Your task to perform on an android device: open wifi settings Image 0: 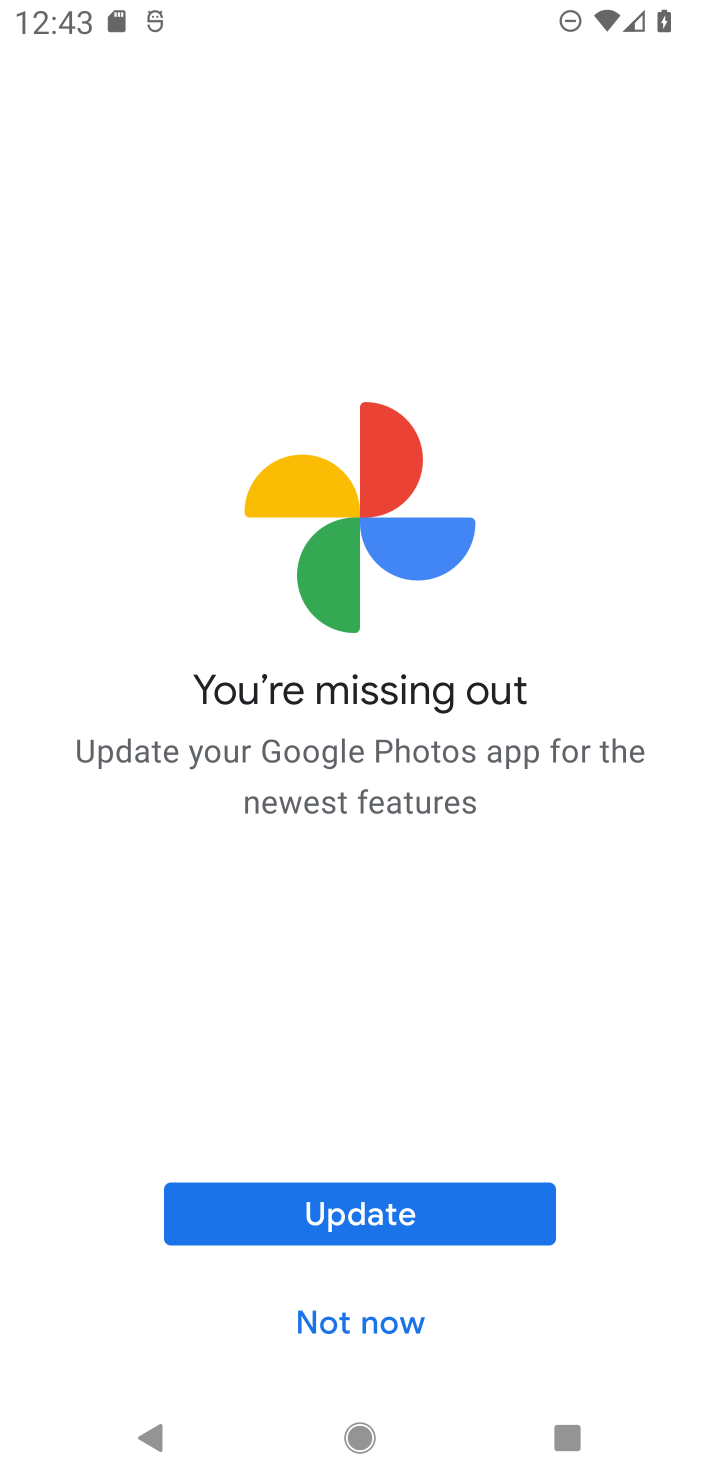
Step 0: press home button
Your task to perform on an android device: open wifi settings Image 1: 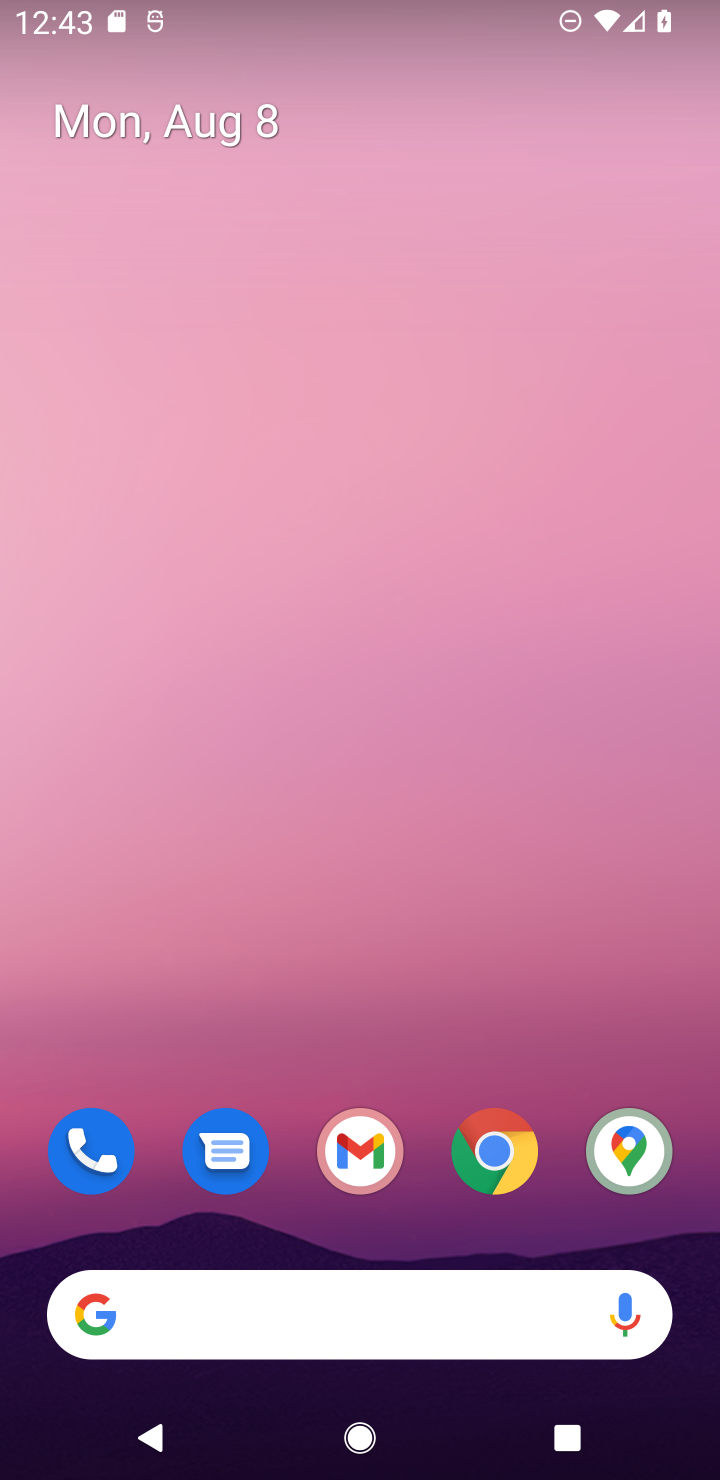
Step 1: drag from (309, 1285) to (160, 272)
Your task to perform on an android device: open wifi settings Image 2: 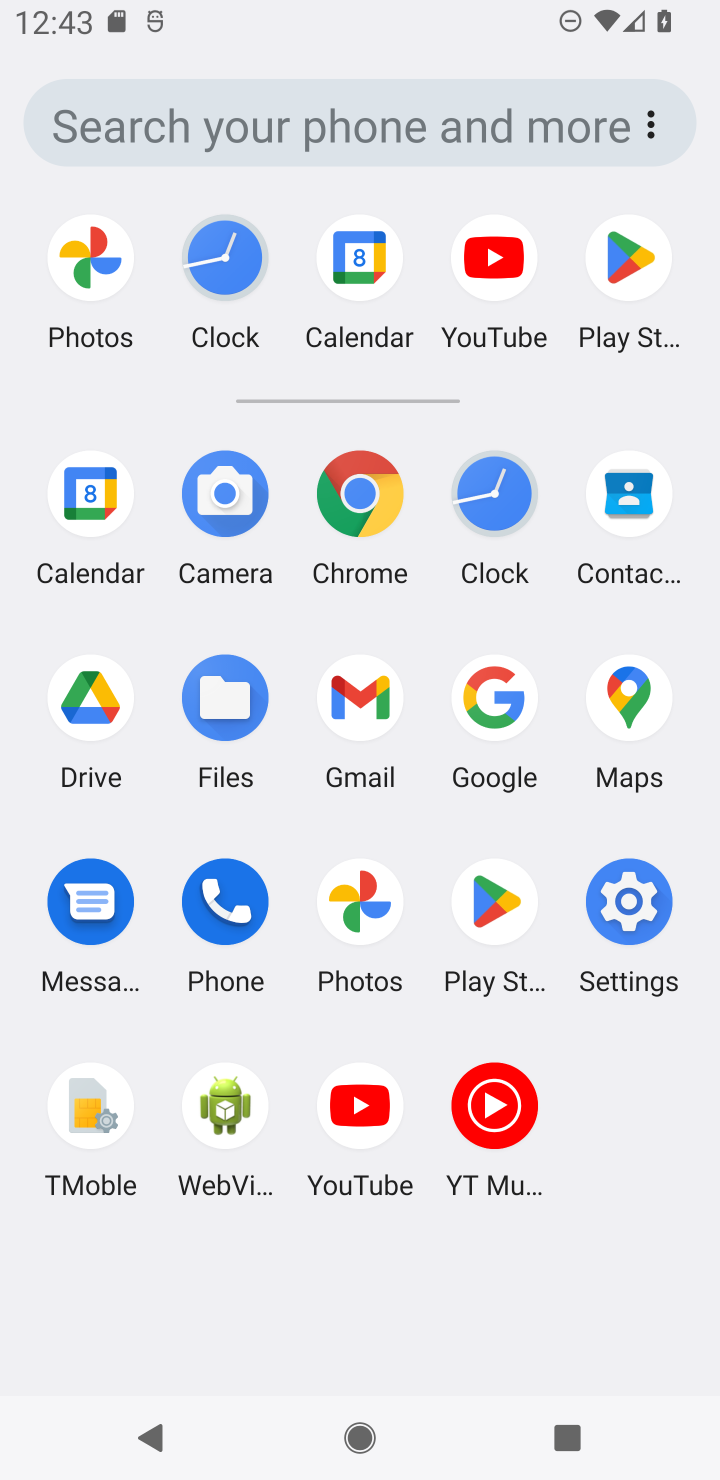
Step 2: click (630, 893)
Your task to perform on an android device: open wifi settings Image 3: 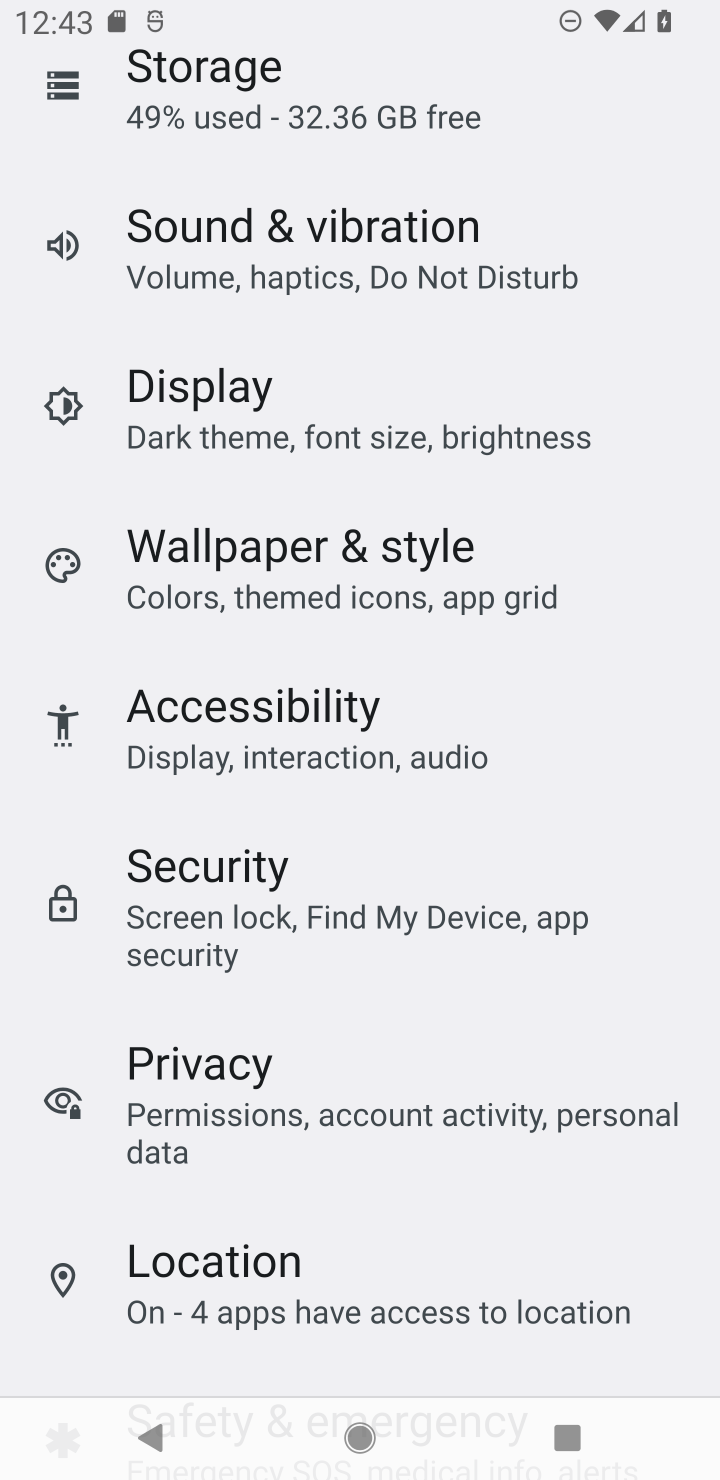
Step 3: drag from (204, 120) to (145, 1002)
Your task to perform on an android device: open wifi settings Image 4: 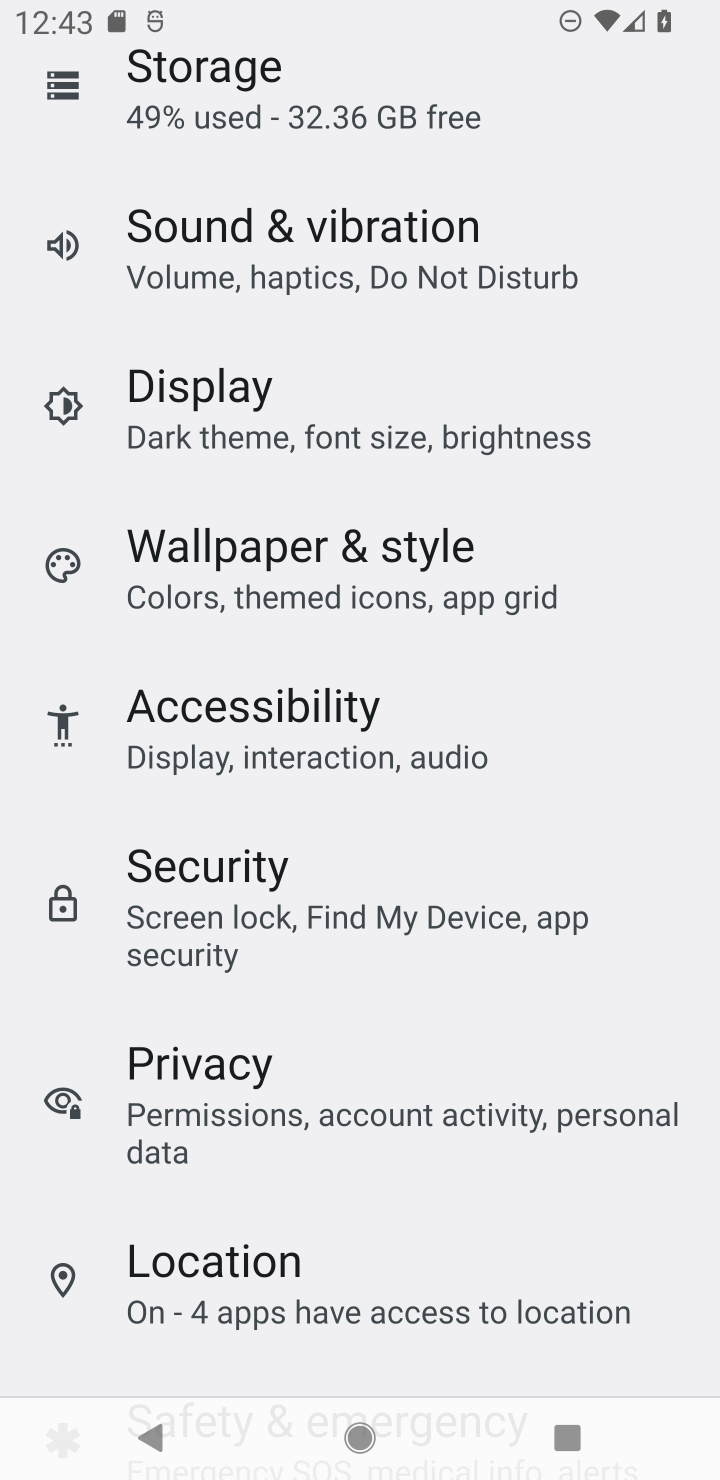
Step 4: drag from (279, 130) to (438, 1160)
Your task to perform on an android device: open wifi settings Image 5: 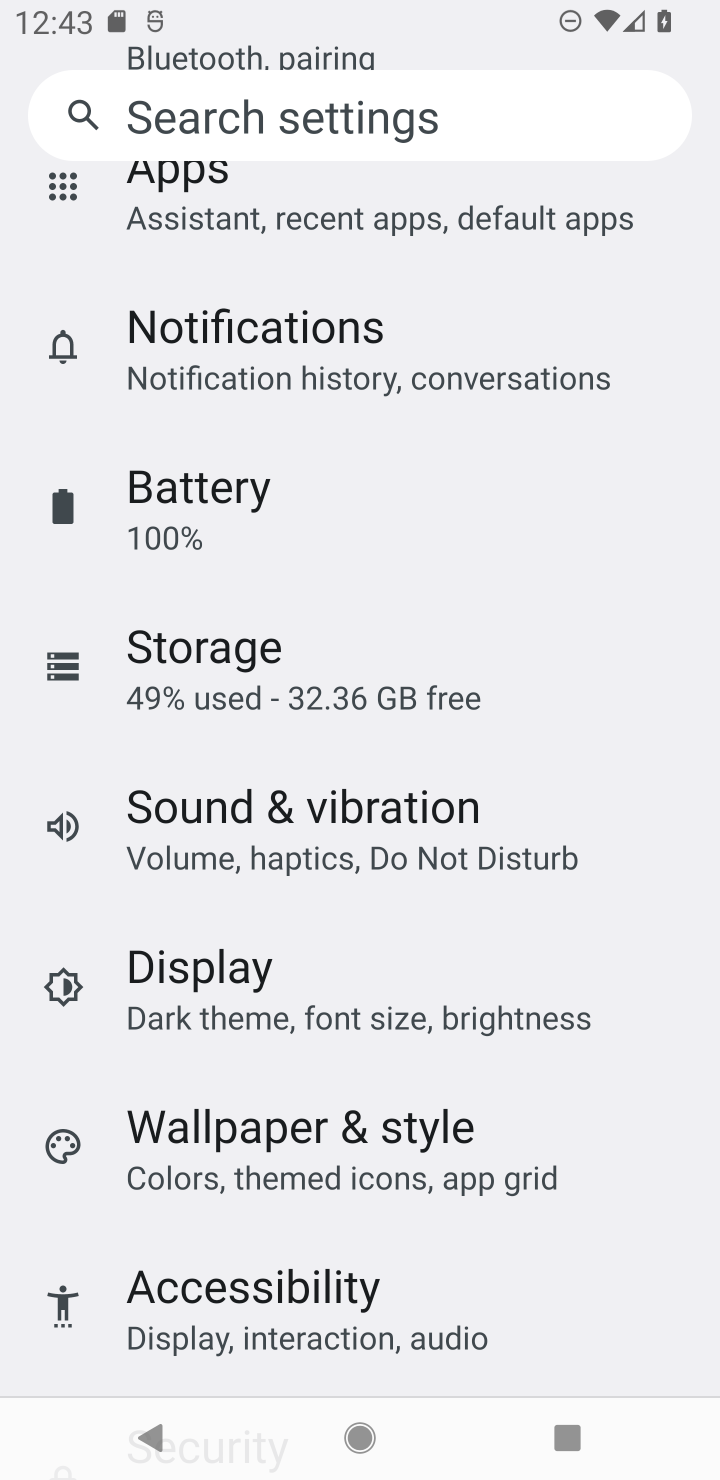
Step 5: drag from (306, 440) to (375, 1019)
Your task to perform on an android device: open wifi settings Image 6: 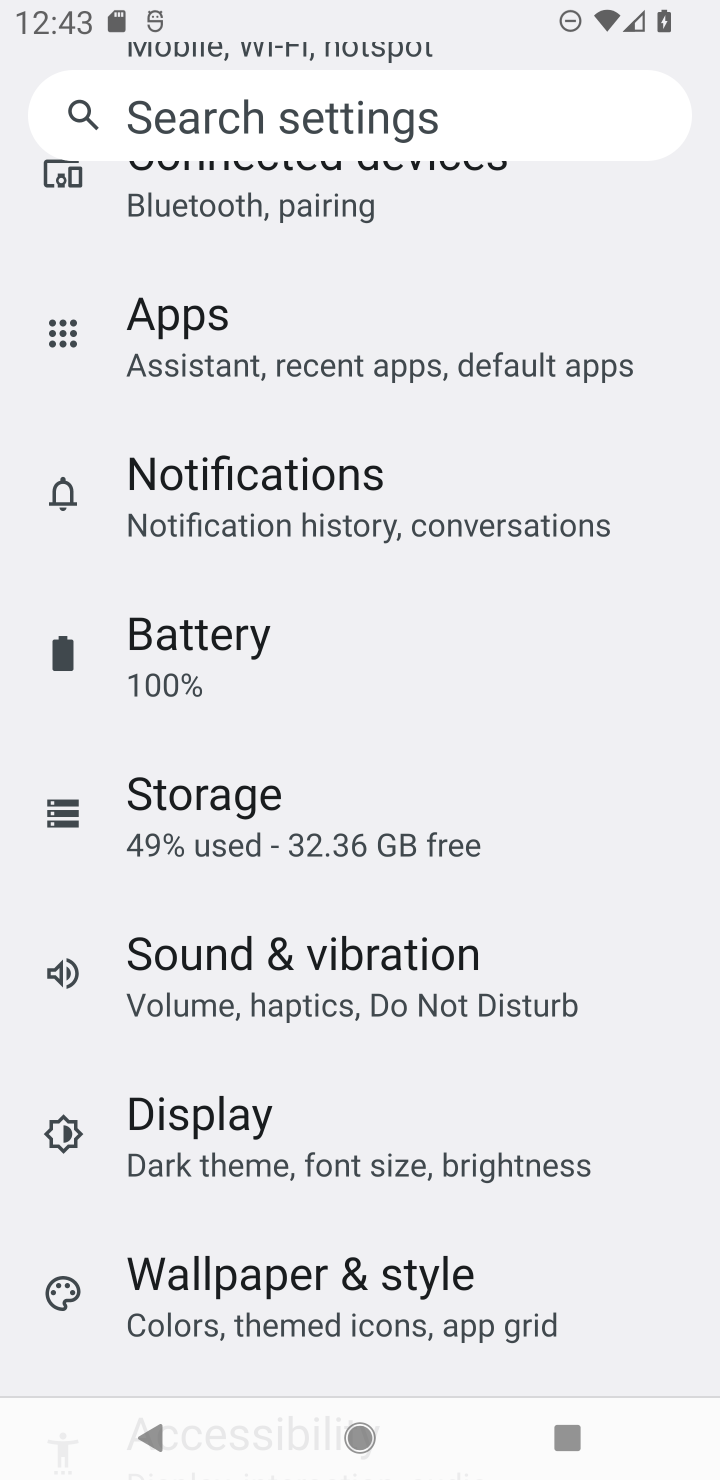
Step 6: drag from (329, 241) to (360, 1221)
Your task to perform on an android device: open wifi settings Image 7: 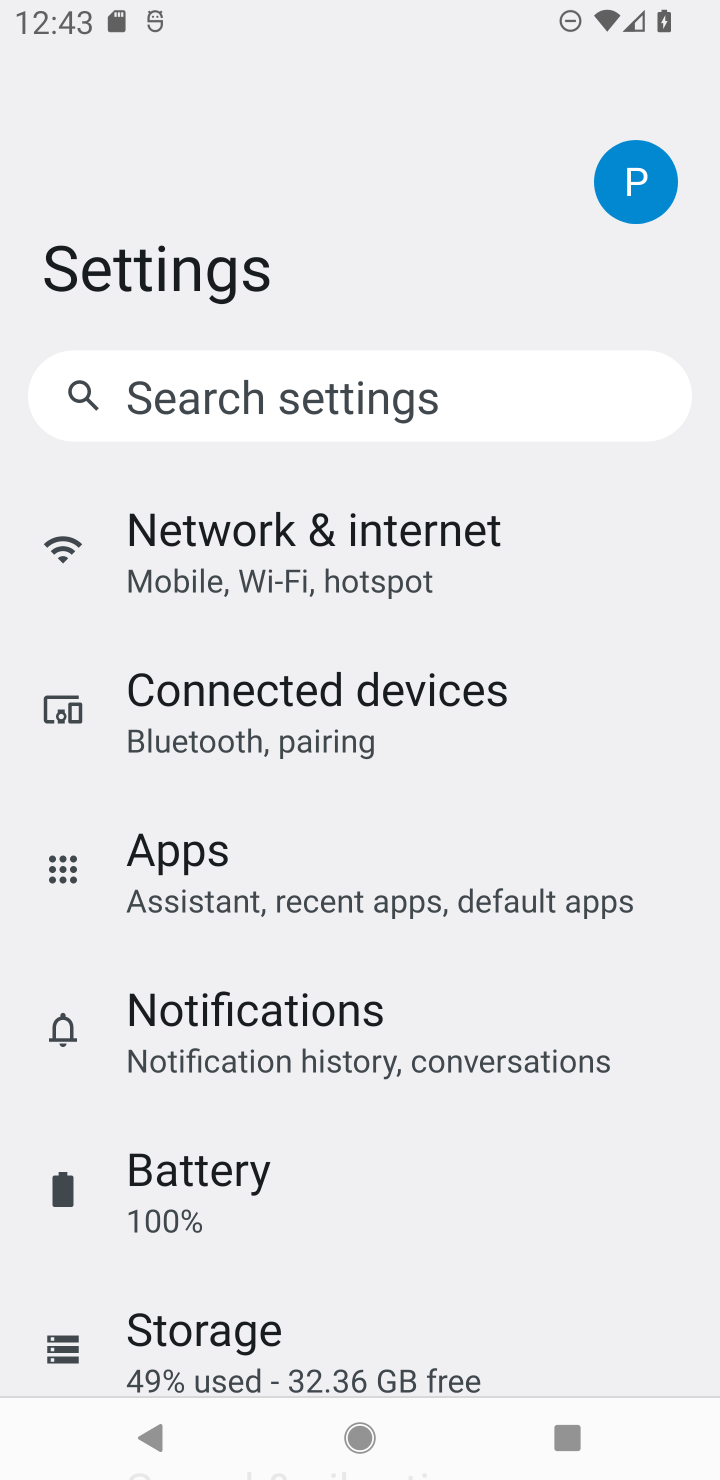
Step 7: click (274, 580)
Your task to perform on an android device: open wifi settings Image 8: 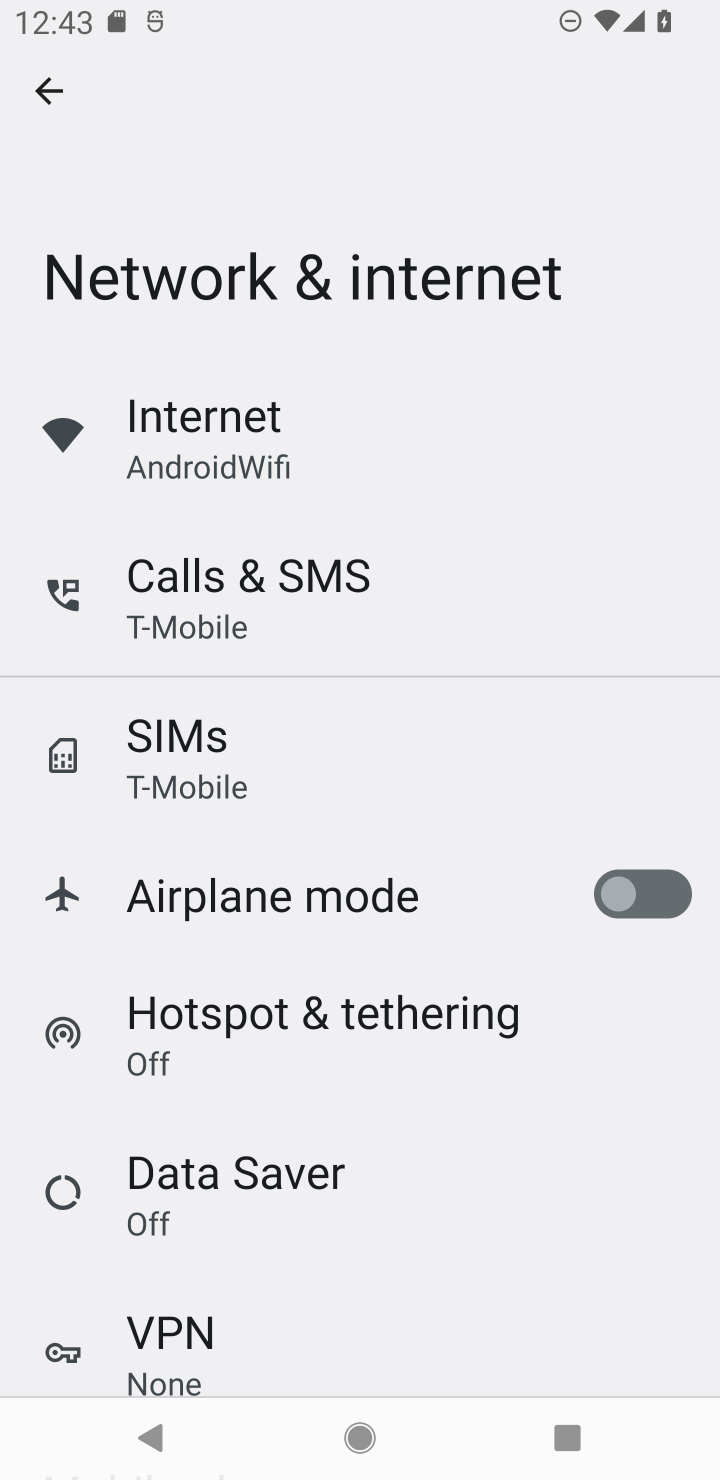
Step 8: click (163, 431)
Your task to perform on an android device: open wifi settings Image 9: 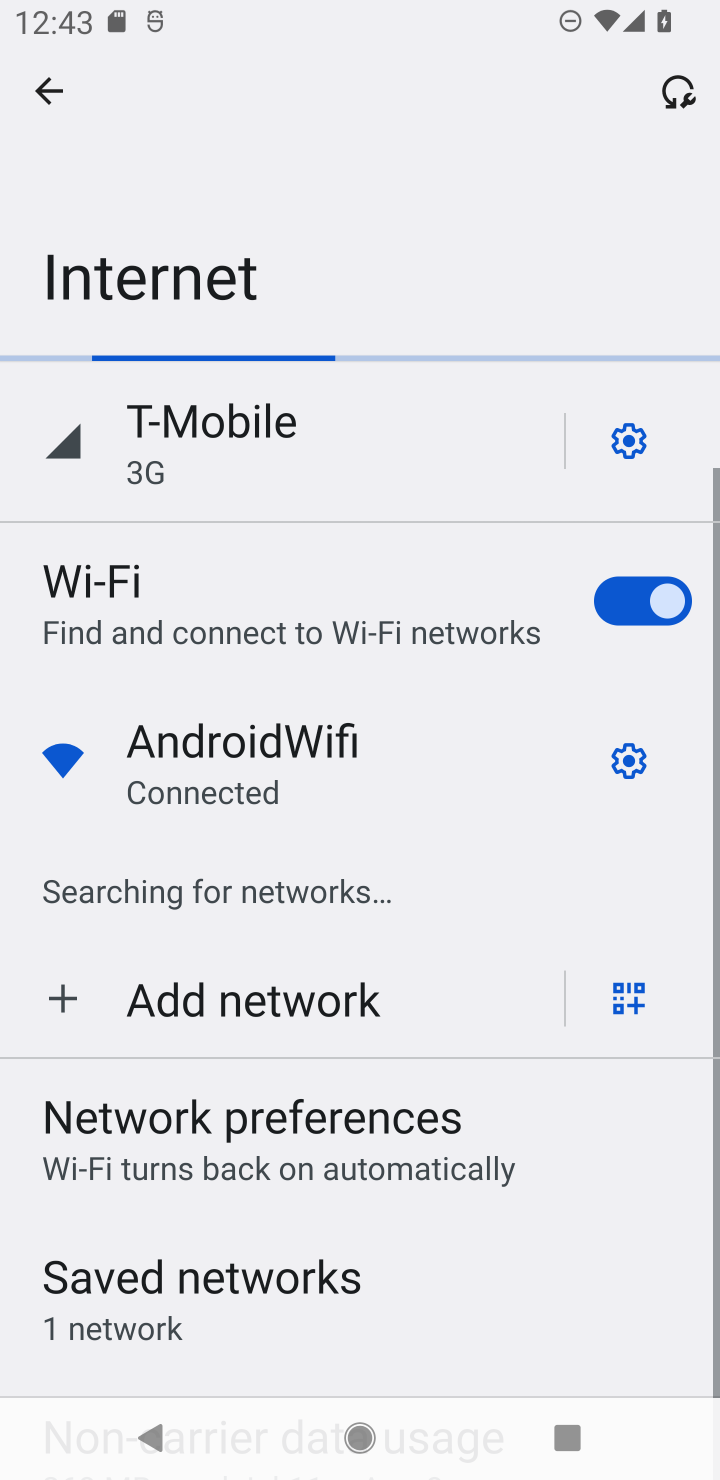
Step 9: click (616, 760)
Your task to perform on an android device: open wifi settings Image 10: 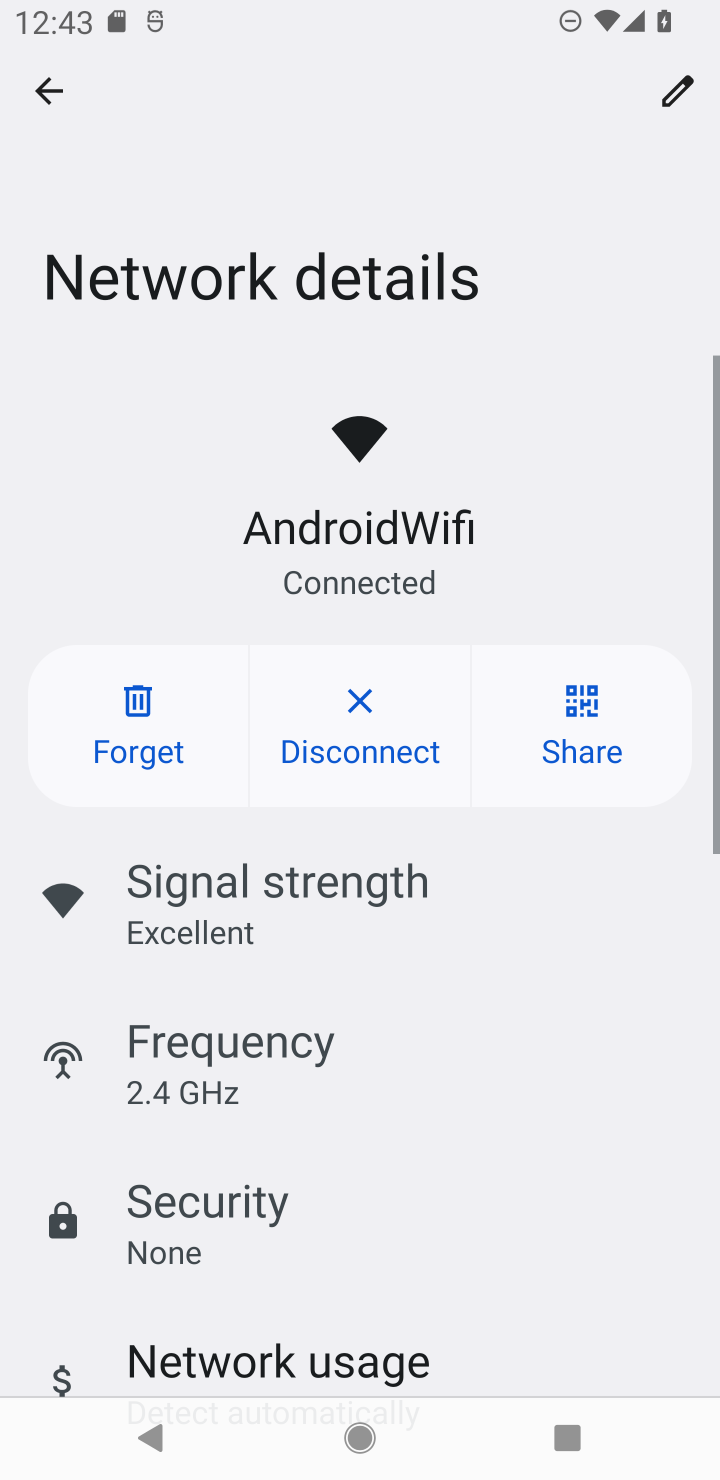
Step 10: task complete